Your task to perform on an android device: Check the news Image 0: 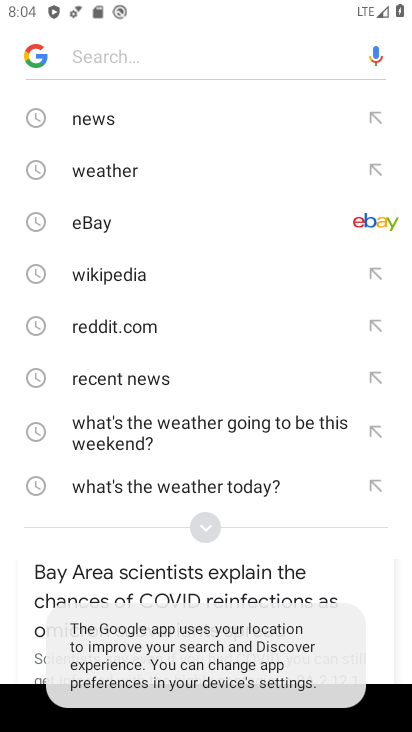
Step 0: click (132, 113)
Your task to perform on an android device: Check the news Image 1: 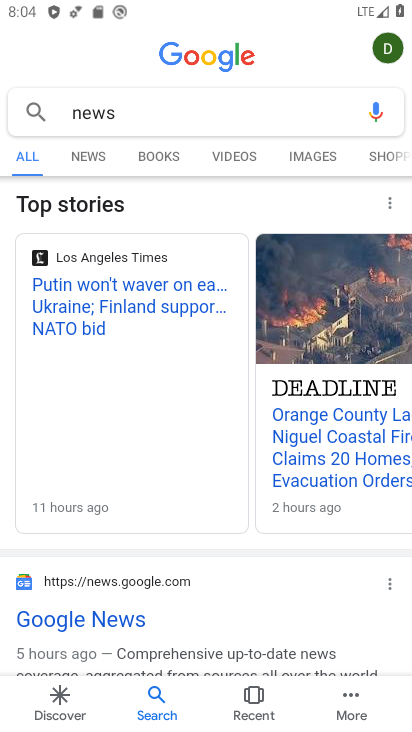
Step 1: task complete